Your task to perform on an android device: turn on wifi Image 0: 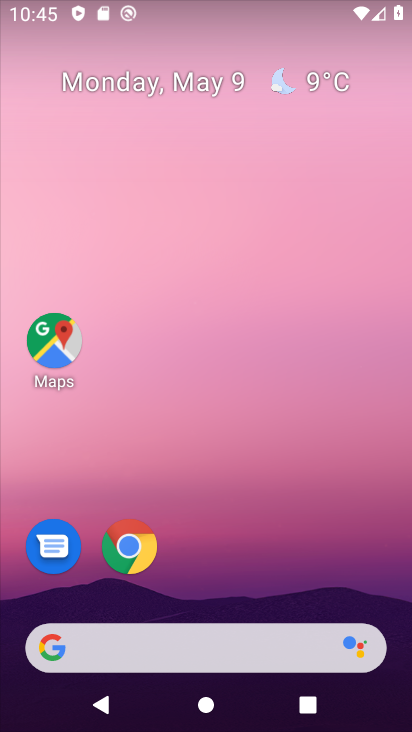
Step 0: drag from (226, 707) to (226, 143)
Your task to perform on an android device: turn on wifi Image 1: 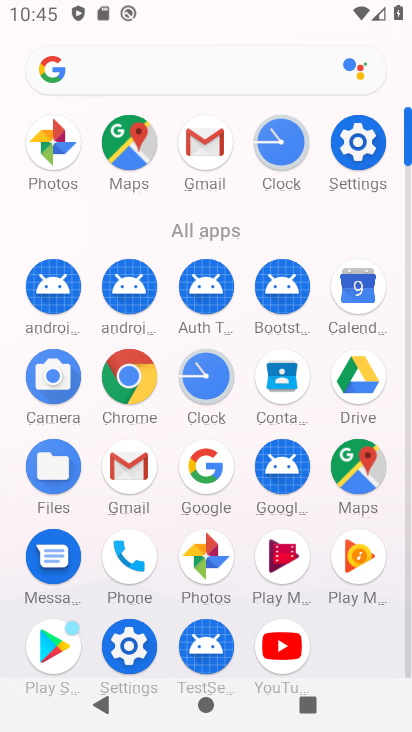
Step 1: click (356, 139)
Your task to perform on an android device: turn on wifi Image 2: 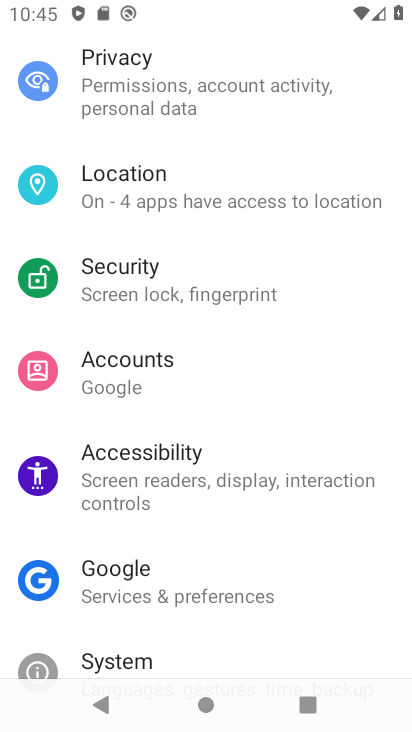
Step 2: drag from (364, 104) to (344, 557)
Your task to perform on an android device: turn on wifi Image 3: 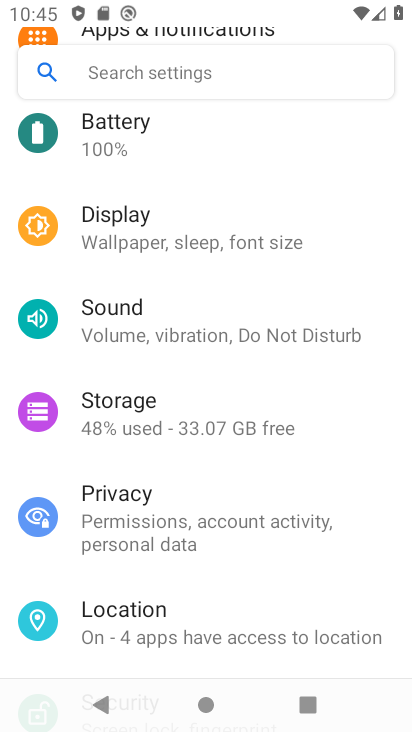
Step 3: drag from (355, 144) to (347, 603)
Your task to perform on an android device: turn on wifi Image 4: 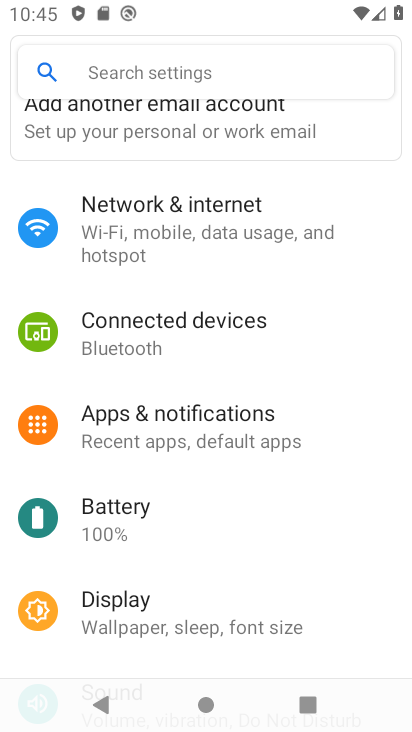
Step 4: click (172, 211)
Your task to perform on an android device: turn on wifi Image 5: 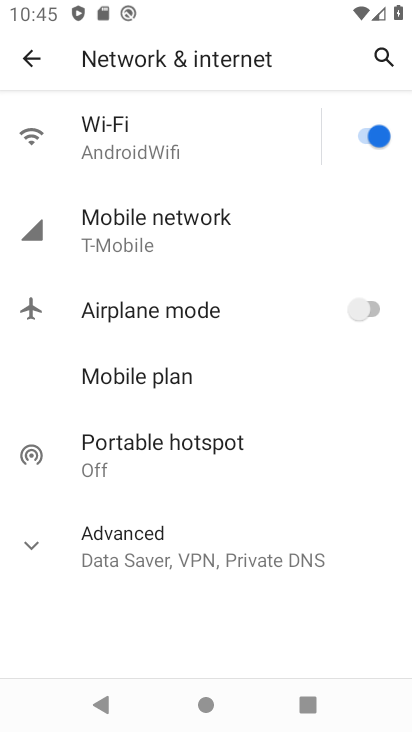
Step 5: task complete